Your task to perform on an android device: delete a single message in the gmail app Image 0: 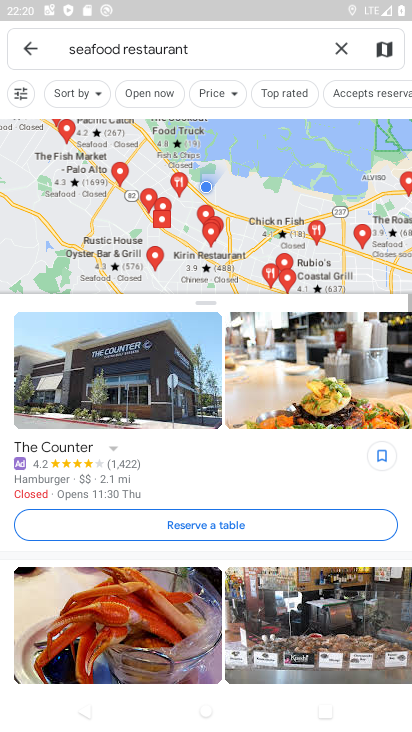
Step 0: press back button
Your task to perform on an android device: delete a single message in the gmail app Image 1: 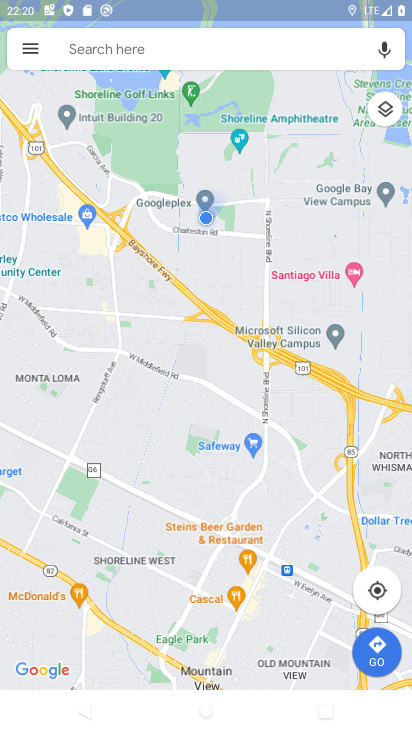
Step 1: press back button
Your task to perform on an android device: delete a single message in the gmail app Image 2: 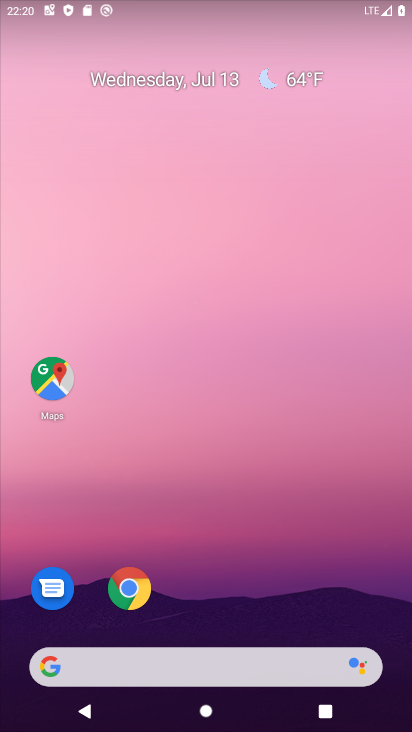
Step 2: drag from (262, 595) to (312, 5)
Your task to perform on an android device: delete a single message in the gmail app Image 3: 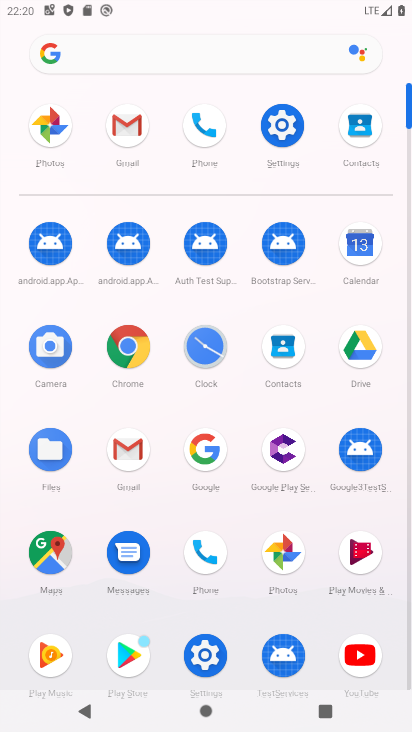
Step 3: click (142, 464)
Your task to perform on an android device: delete a single message in the gmail app Image 4: 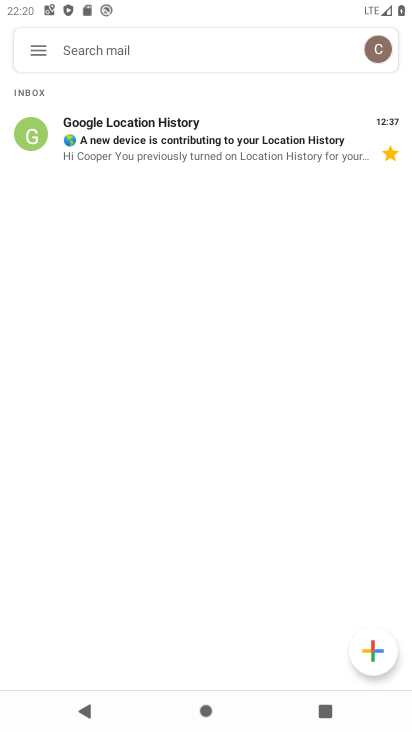
Step 4: click (183, 143)
Your task to perform on an android device: delete a single message in the gmail app Image 5: 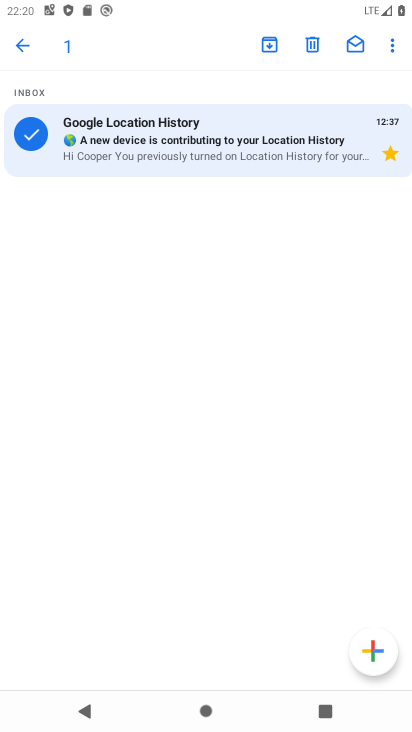
Step 5: click (310, 43)
Your task to perform on an android device: delete a single message in the gmail app Image 6: 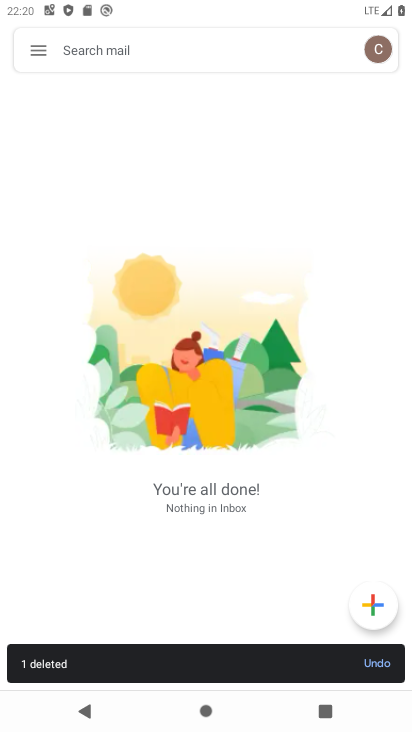
Step 6: task complete